Your task to perform on an android device: snooze an email in the gmail app Image 0: 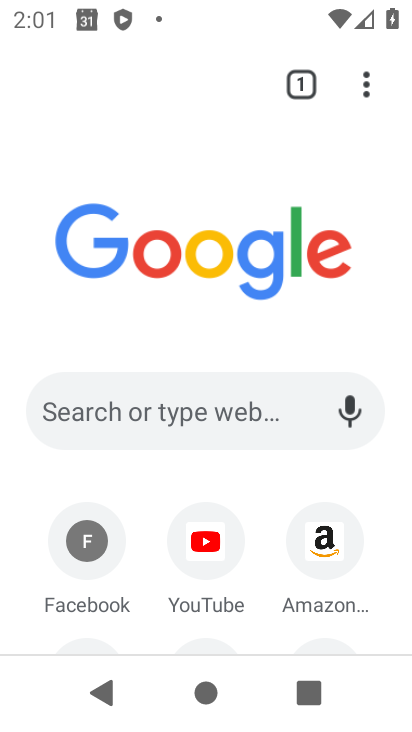
Step 0: press home button
Your task to perform on an android device: snooze an email in the gmail app Image 1: 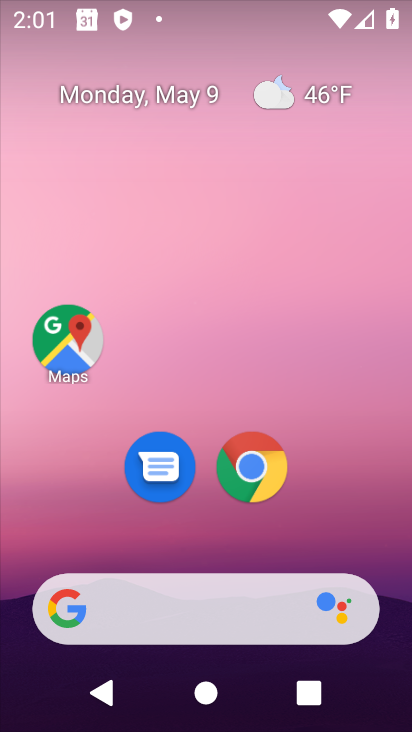
Step 1: drag from (316, 537) to (258, 37)
Your task to perform on an android device: snooze an email in the gmail app Image 2: 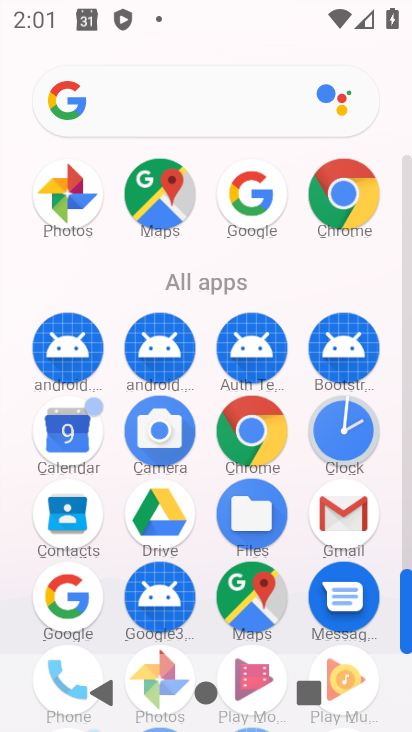
Step 2: click (335, 536)
Your task to perform on an android device: snooze an email in the gmail app Image 3: 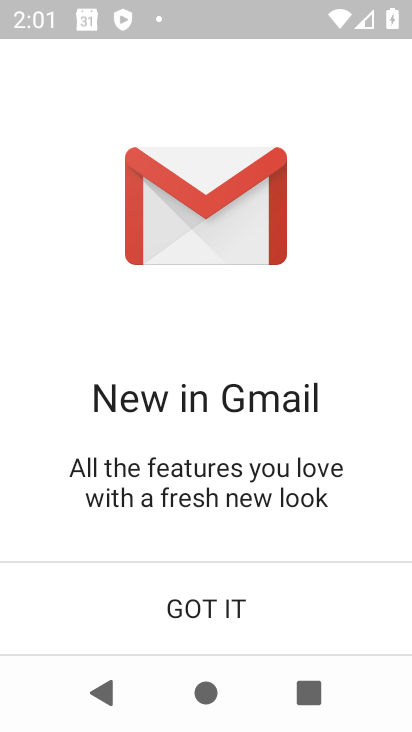
Step 3: click (252, 631)
Your task to perform on an android device: snooze an email in the gmail app Image 4: 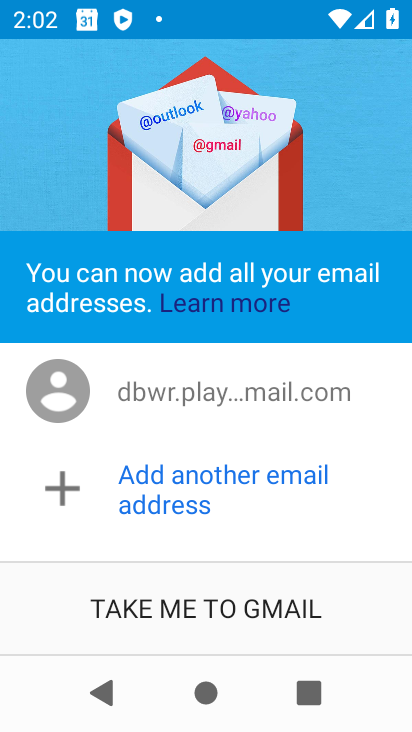
Step 4: click (252, 631)
Your task to perform on an android device: snooze an email in the gmail app Image 5: 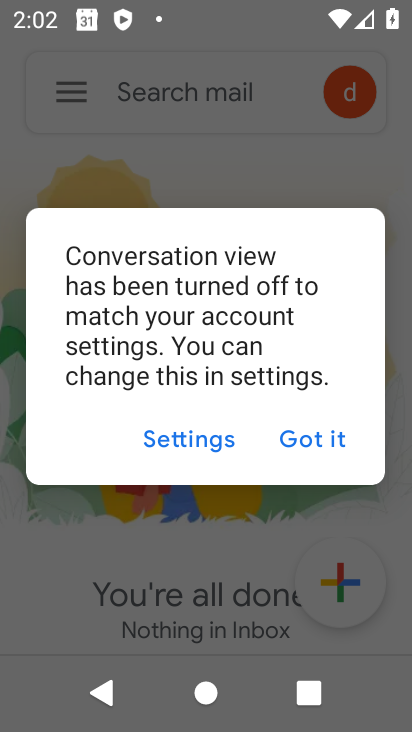
Step 5: click (310, 446)
Your task to perform on an android device: snooze an email in the gmail app Image 6: 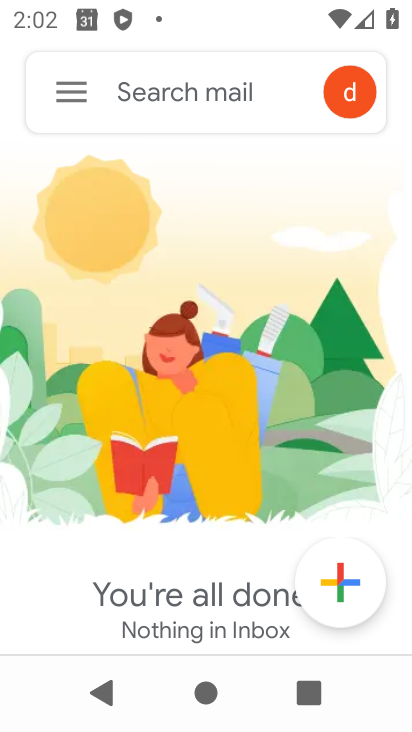
Step 6: click (52, 69)
Your task to perform on an android device: snooze an email in the gmail app Image 7: 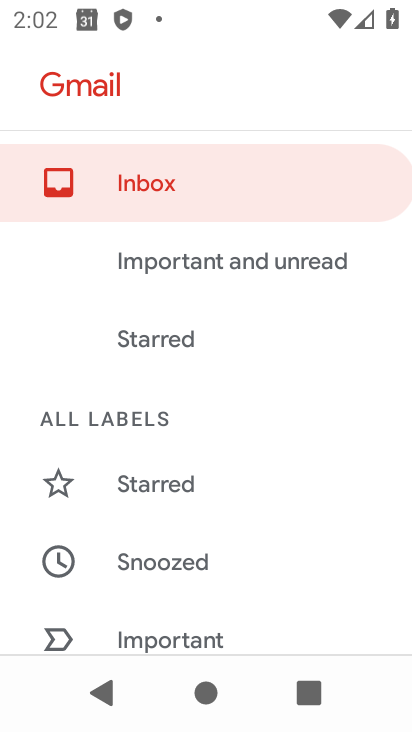
Step 7: drag from (173, 600) to (208, 47)
Your task to perform on an android device: snooze an email in the gmail app Image 8: 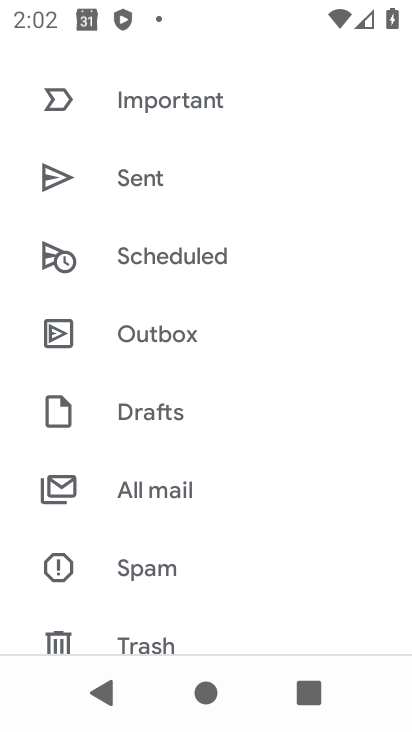
Step 8: drag from (239, 550) to (288, 179)
Your task to perform on an android device: snooze an email in the gmail app Image 9: 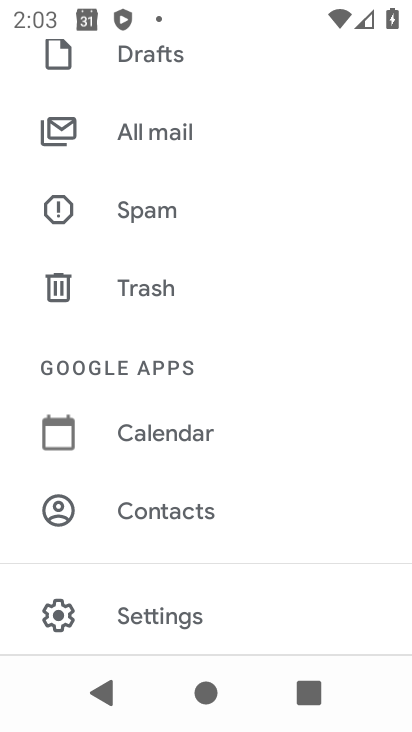
Step 9: drag from (146, 163) to (197, 534)
Your task to perform on an android device: snooze an email in the gmail app Image 10: 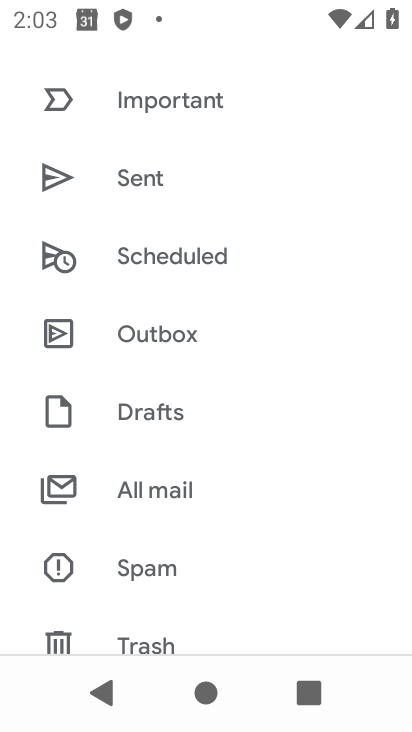
Step 10: click (153, 497)
Your task to perform on an android device: snooze an email in the gmail app Image 11: 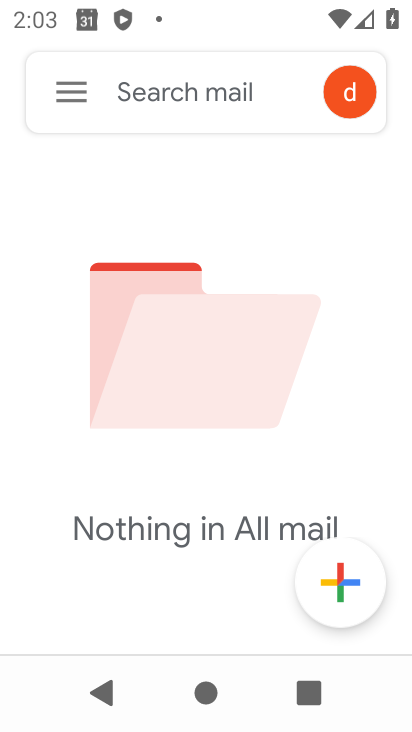
Step 11: task complete